Your task to perform on an android device: open a bookmark in the chrome app Image 0: 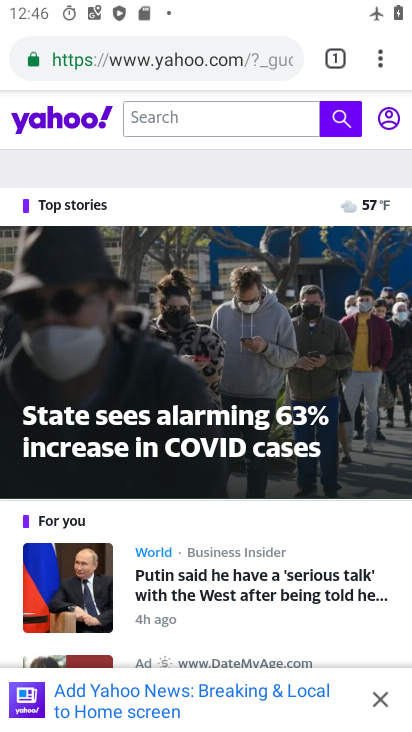
Step 0: press home button
Your task to perform on an android device: open a bookmark in the chrome app Image 1: 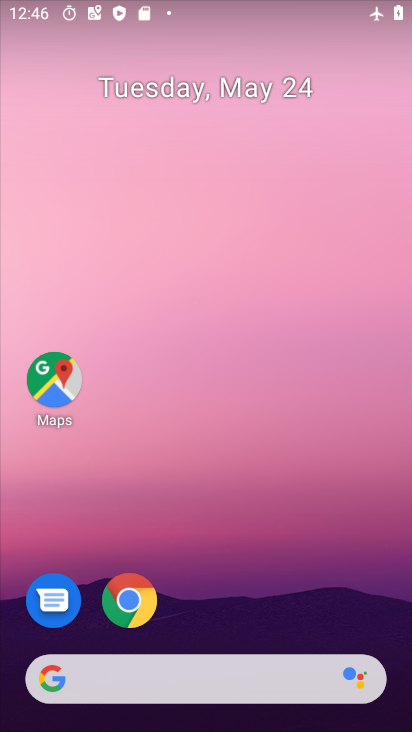
Step 1: click (119, 600)
Your task to perform on an android device: open a bookmark in the chrome app Image 2: 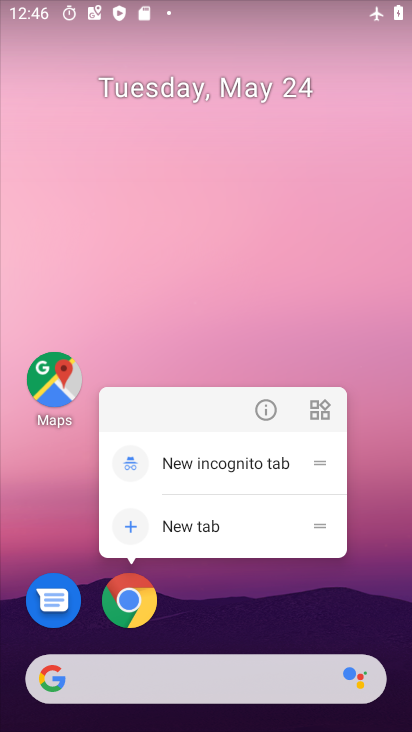
Step 2: click (129, 599)
Your task to perform on an android device: open a bookmark in the chrome app Image 3: 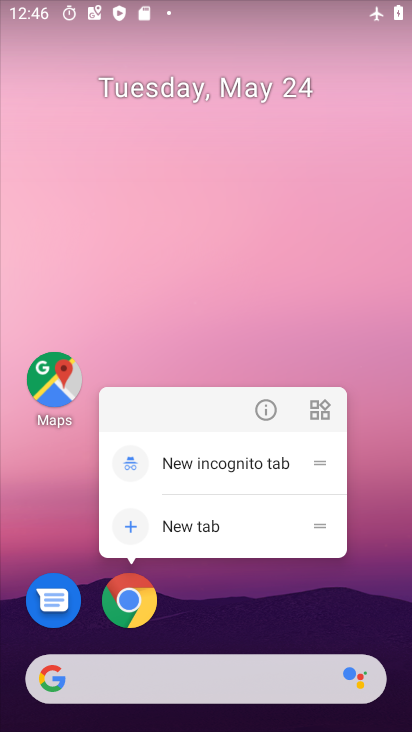
Step 3: click (225, 620)
Your task to perform on an android device: open a bookmark in the chrome app Image 4: 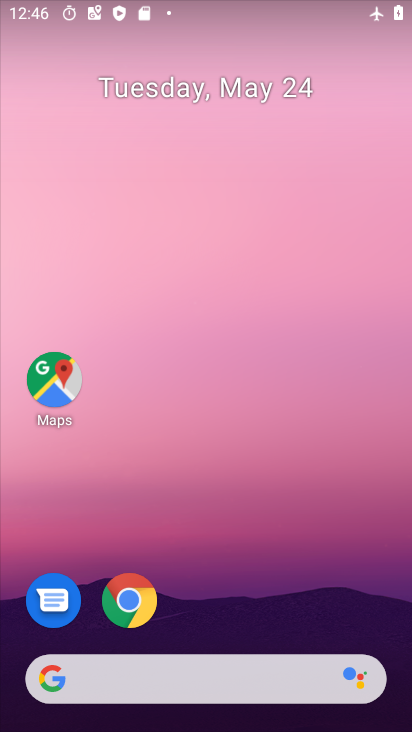
Step 4: drag from (348, 620) to (321, 149)
Your task to perform on an android device: open a bookmark in the chrome app Image 5: 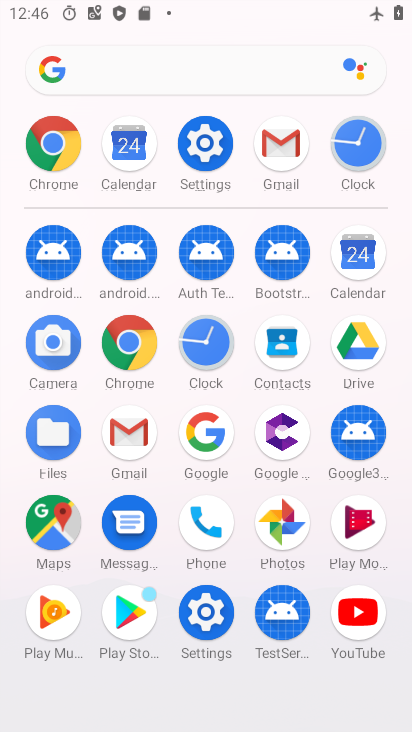
Step 5: click (129, 350)
Your task to perform on an android device: open a bookmark in the chrome app Image 6: 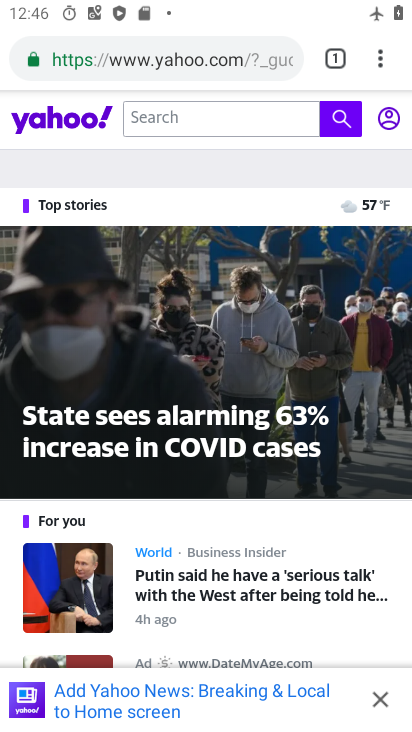
Step 6: click (382, 53)
Your task to perform on an android device: open a bookmark in the chrome app Image 7: 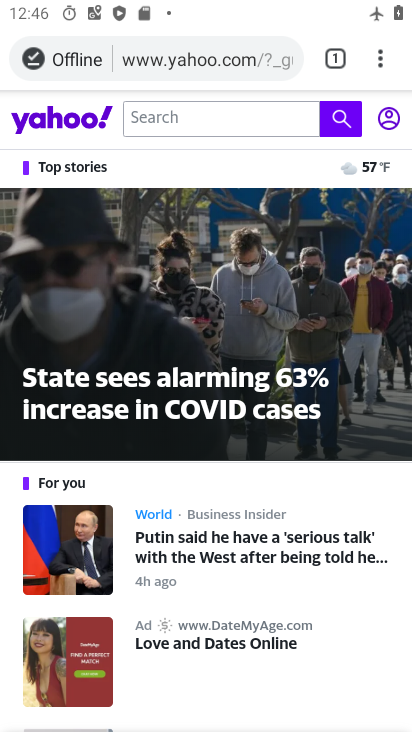
Step 7: task complete